Your task to perform on an android device: turn on wifi Image 0: 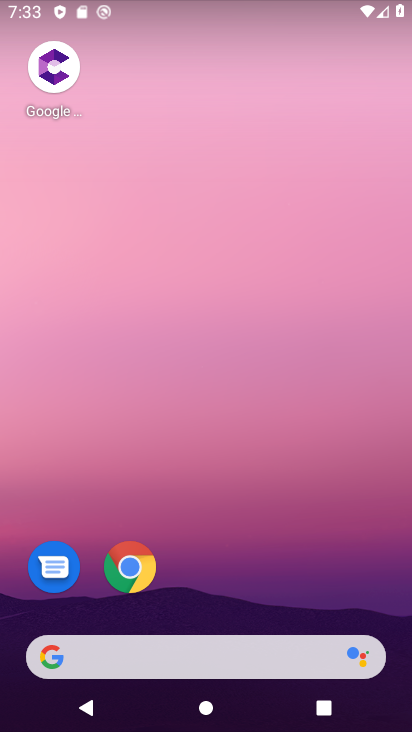
Step 0: drag from (154, 665) to (339, 196)
Your task to perform on an android device: turn on wifi Image 1: 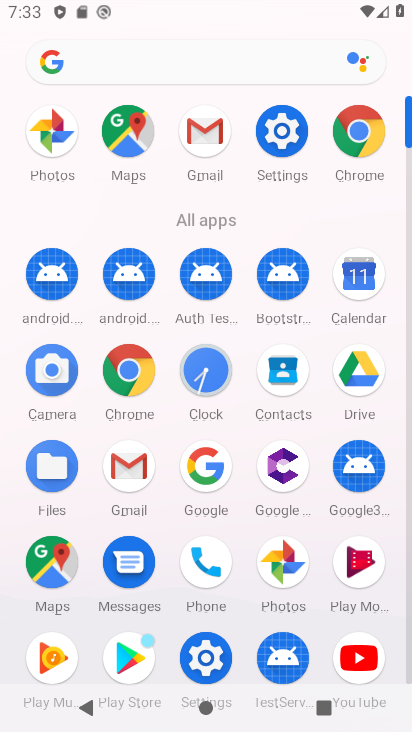
Step 1: click (278, 144)
Your task to perform on an android device: turn on wifi Image 2: 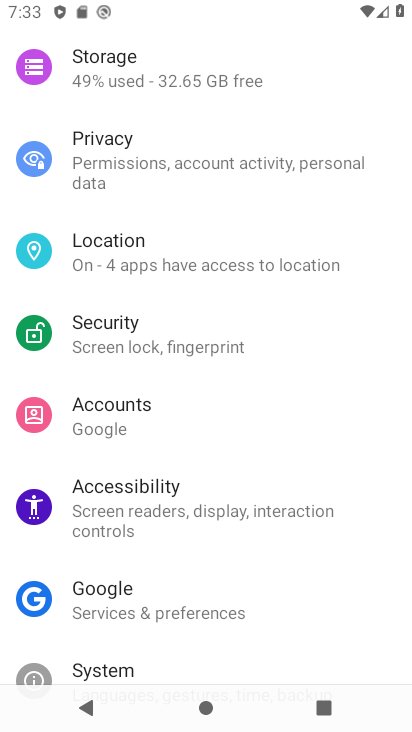
Step 2: drag from (265, 112) to (185, 475)
Your task to perform on an android device: turn on wifi Image 3: 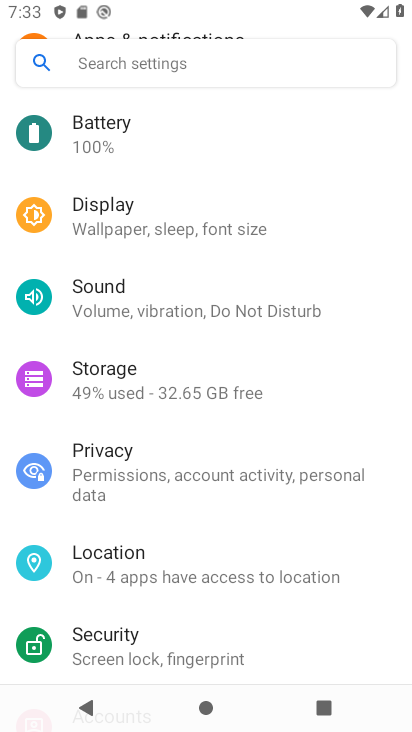
Step 3: drag from (283, 160) to (175, 547)
Your task to perform on an android device: turn on wifi Image 4: 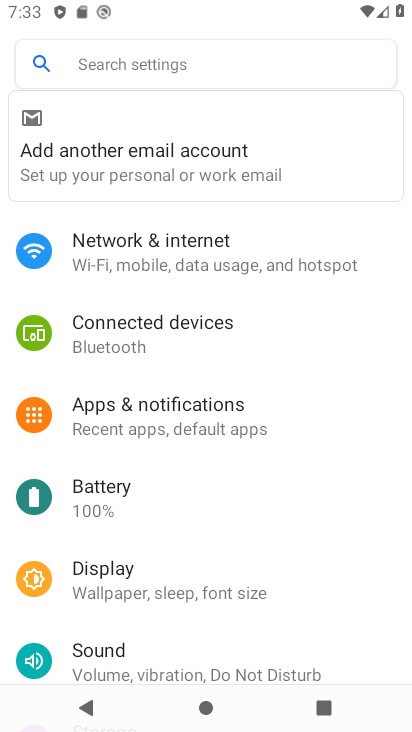
Step 4: click (204, 256)
Your task to perform on an android device: turn on wifi Image 5: 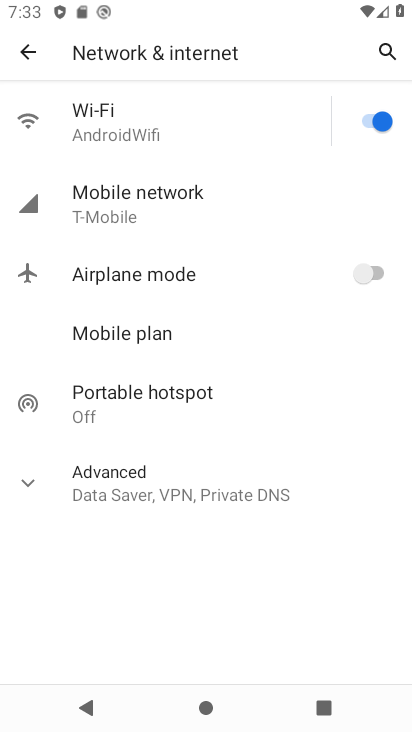
Step 5: task complete